Your task to perform on an android device: turn off data saver in the chrome app Image 0: 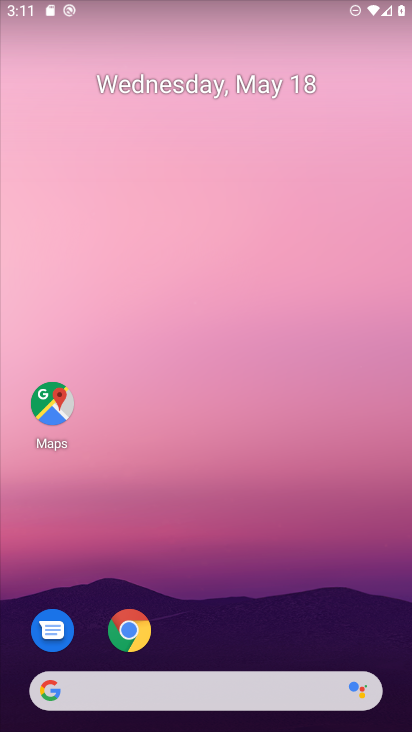
Step 0: click (127, 624)
Your task to perform on an android device: turn off data saver in the chrome app Image 1: 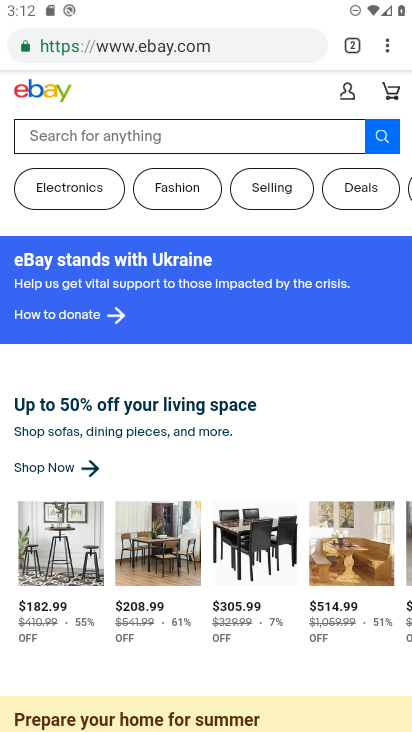
Step 1: click (386, 45)
Your task to perform on an android device: turn off data saver in the chrome app Image 2: 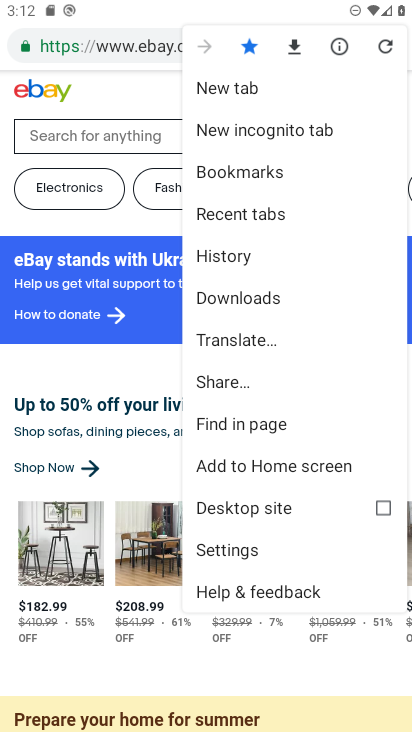
Step 2: click (267, 549)
Your task to perform on an android device: turn off data saver in the chrome app Image 3: 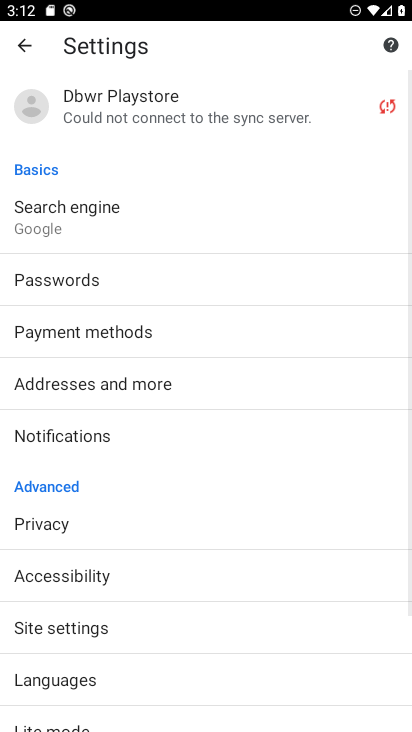
Step 3: drag from (156, 679) to (233, 158)
Your task to perform on an android device: turn off data saver in the chrome app Image 4: 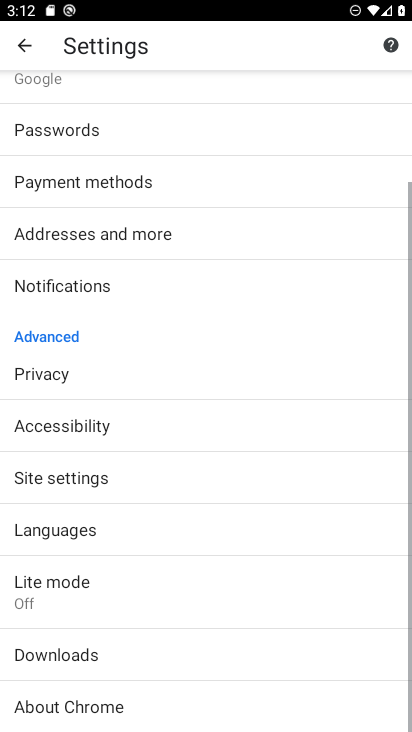
Step 4: click (87, 594)
Your task to perform on an android device: turn off data saver in the chrome app Image 5: 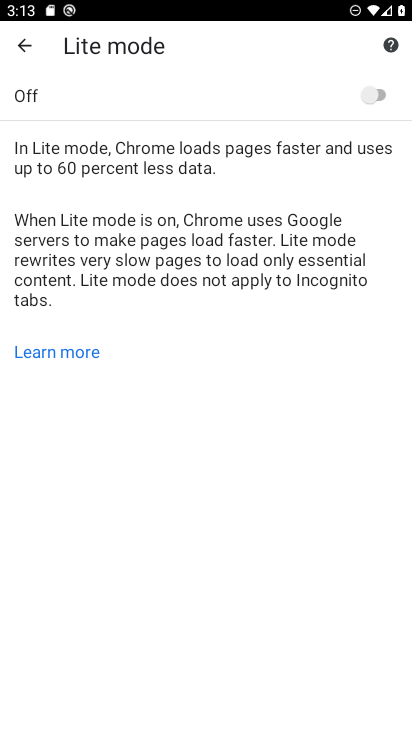
Step 5: task complete